Your task to perform on an android device: What's the weather going to be this weekend? Image 0: 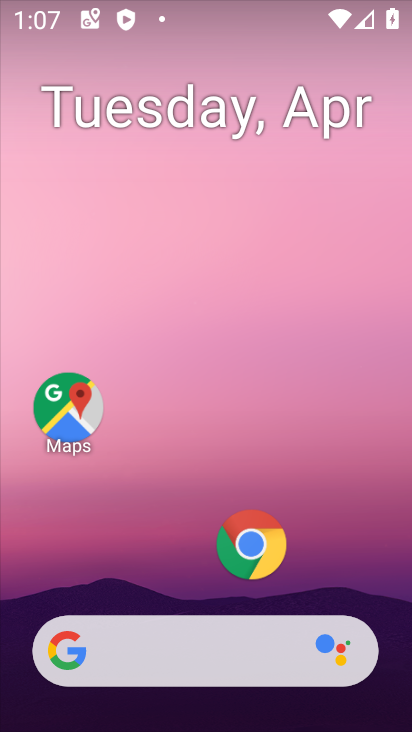
Step 0: drag from (168, 562) to (216, 332)
Your task to perform on an android device: What's the weather going to be this weekend? Image 1: 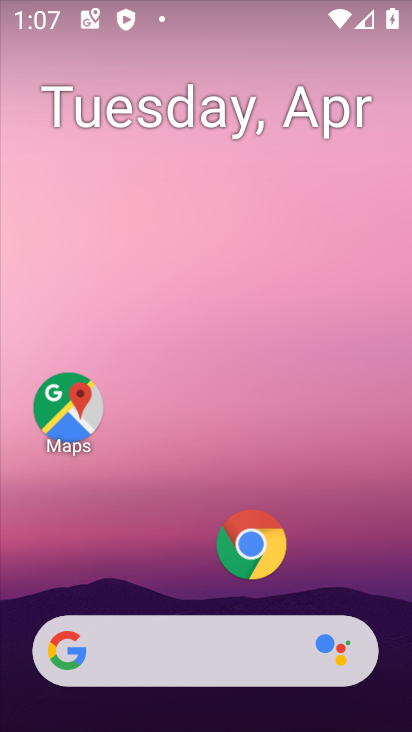
Step 1: drag from (170, 538) to (227, 113)
Your task to perform on an android device: What's the weather going to be this weekend? Image 2: 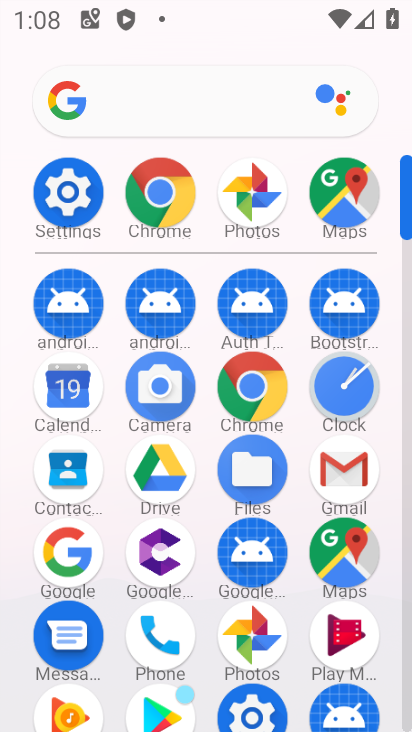
Step 2: click (155, 196)
Your task to perform on an android device: What's the weather going to be this weekend? Image 3: 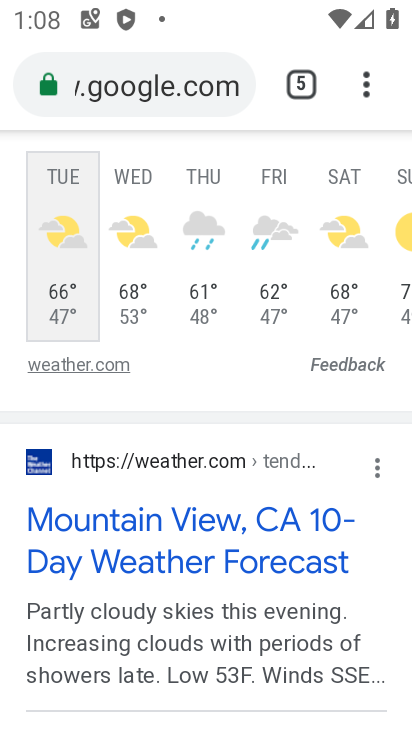
Step 3: click (362, 76)
Your task to perform on an android device: What's the weather going to be this weekend? Image 4: 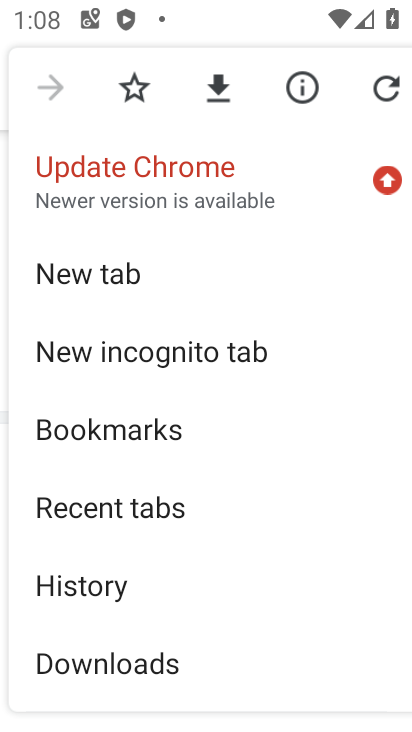
Step 4: click (130, 282)
Your task to perform on an android device: What's the weather going to be this weekend? Image 5: 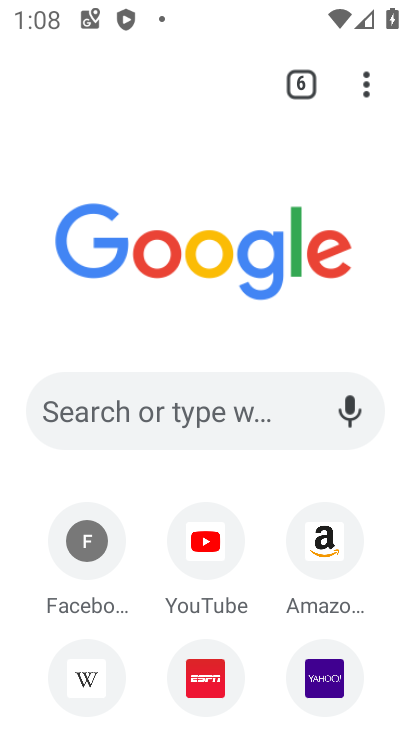
Step 5: click (219, 403)
Your task to perform on an android device: What's the weather going to be this weekend? Image 6: 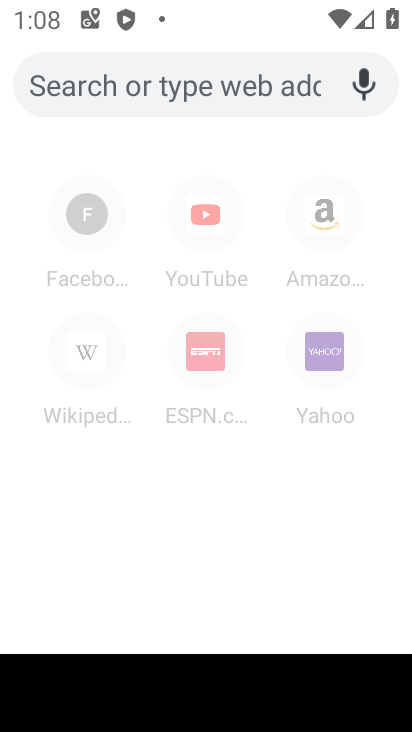
Step 6: type "What's the weather going to be this weekend?"
Your task to perform on an android device: What's the weather going to be this weekend? Image 7: 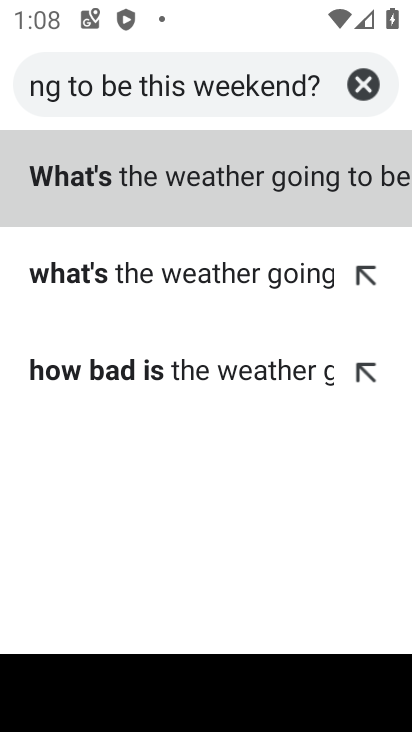
Step 7: click (248, 164)
Your task to perform on an android device: What's the weather going to be this weekend? Image 8: 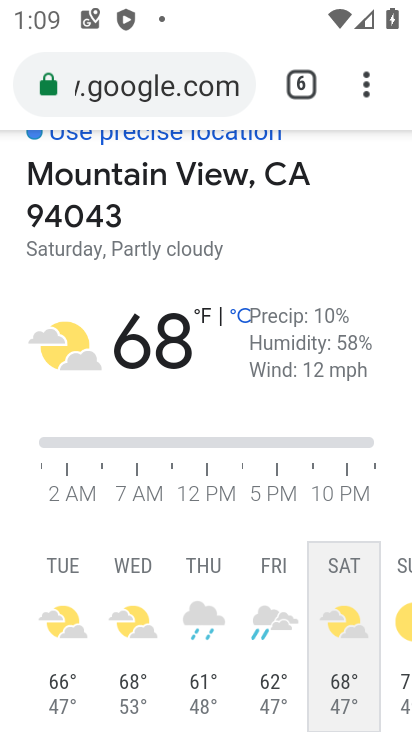
Step 8: task complete